Your task to perform on an android device: check storage Image 0: 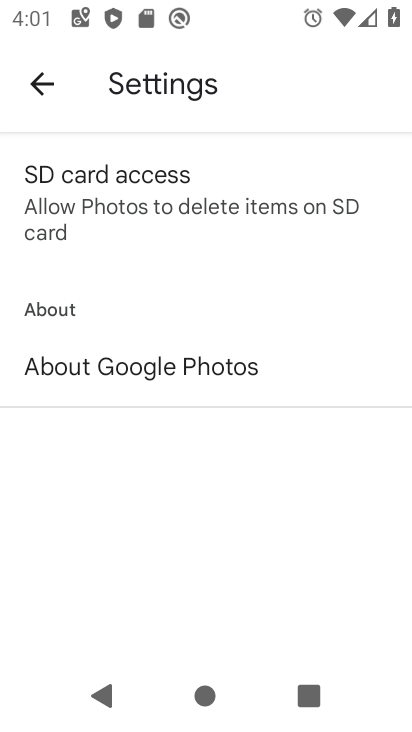
Step 0: press home button
Your task to perform on an android device: check storage Image 1: 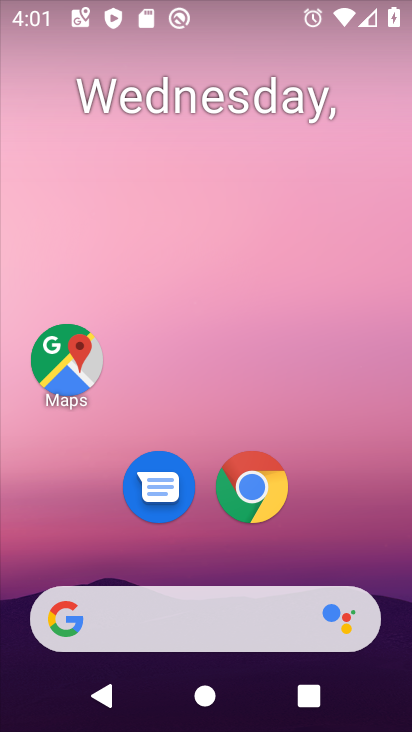
Step 1: drag from (358, 526) to (358, 148)
Your task to perform on an android device: check storage Image 2: 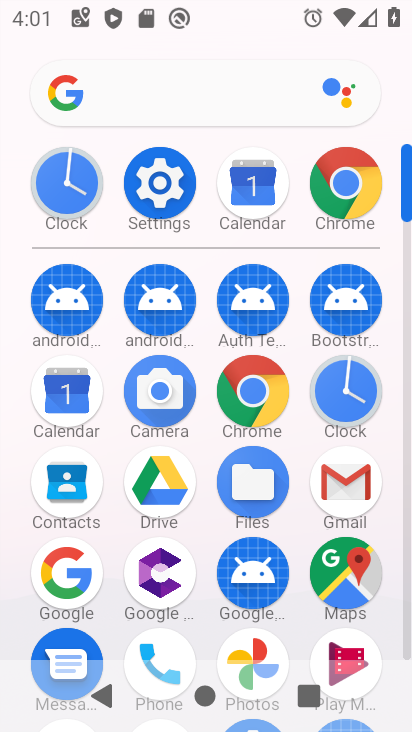
Step 2: click (179, 199)
Your task to perform on an android device: check storage Image 3: 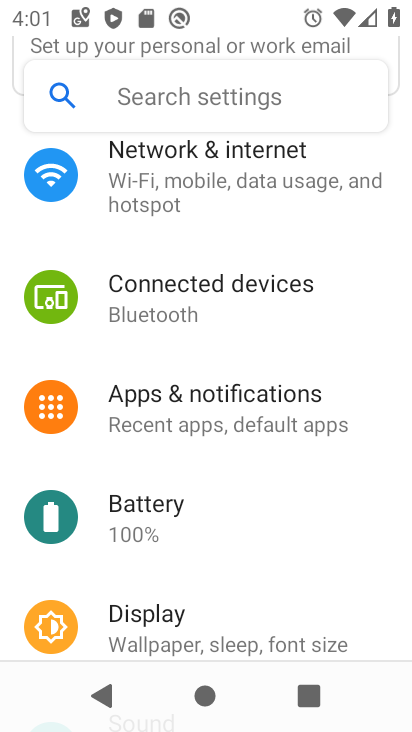
Step 3: drag from (339, 477) to (349, 369)
Your task to perform on an android device: check storage Image 4: 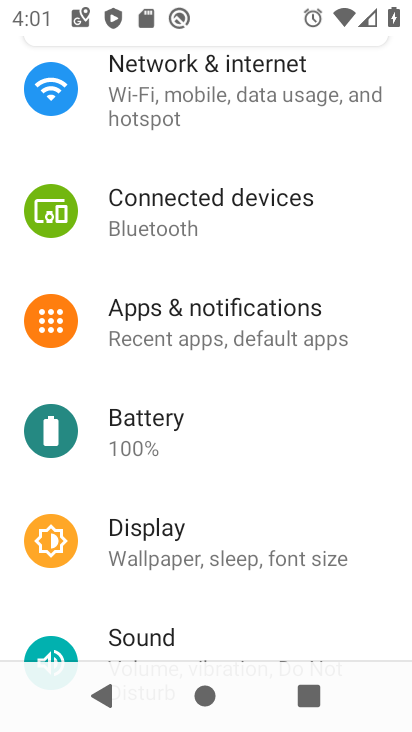
Step 4: drag from (334, 470) to (331, 354)
Your task to perform on an android device: check storage Image 5: 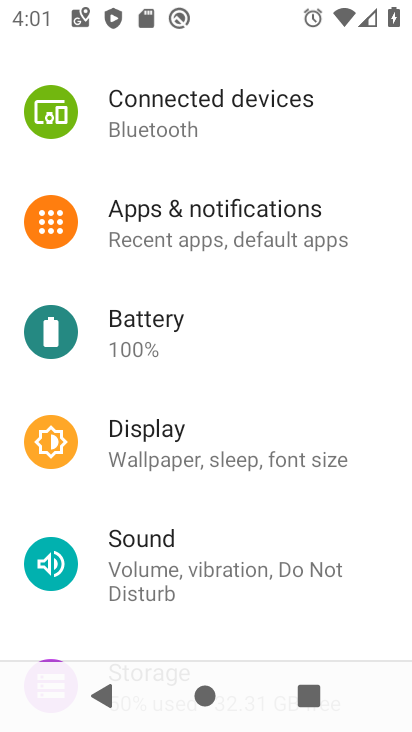
Step 5: drag from (342, 509) to (362, 329)
Your task to perform on an android device: check storage Image 6: 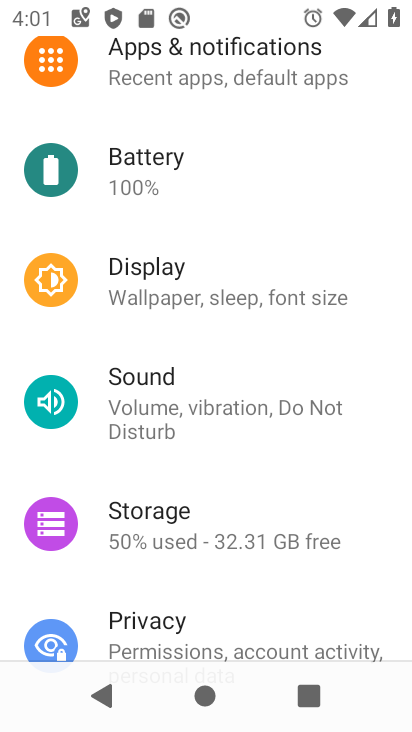
Step 6: drag from (346, 565) to (365, 400)
Your task to perform on an android device: check storage Image 7: 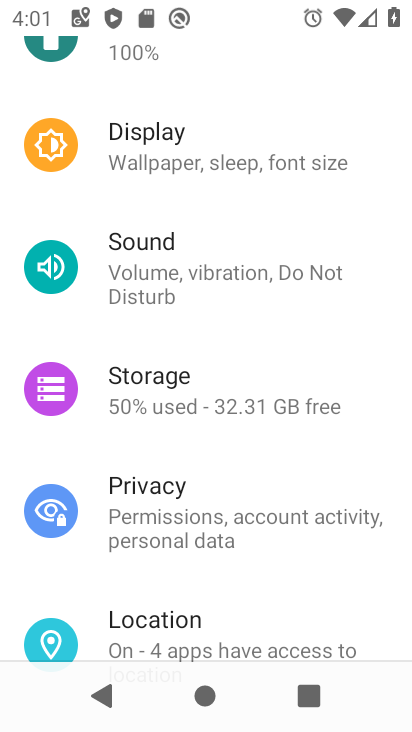
Step 7: click (241, 388)
Your task to perform on an android device: check storage Image 8: 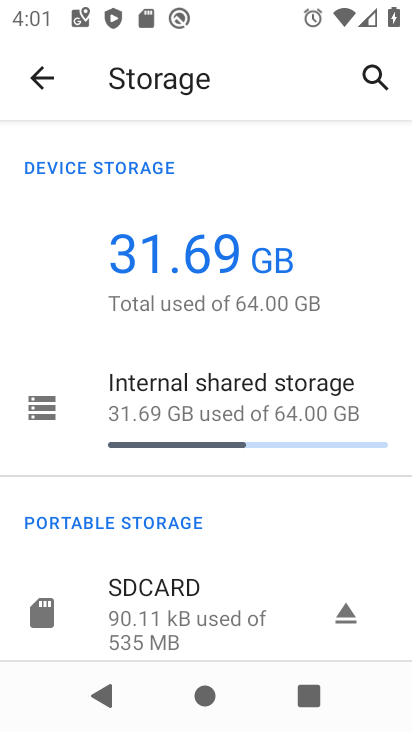
Step 8: task complete